Your task to perform on an android device: check battery use Image 0: 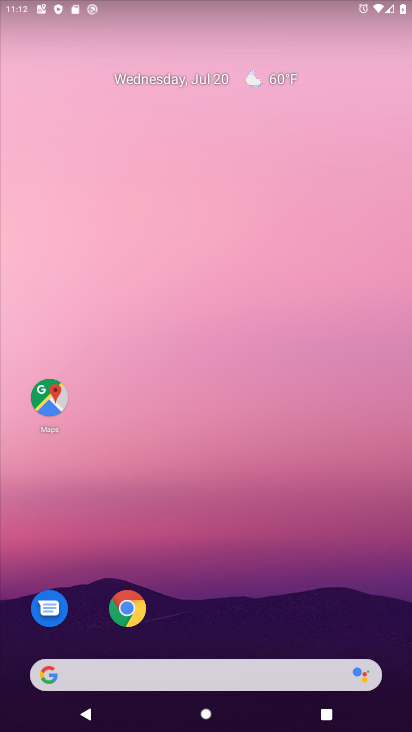
Step 0: drag from (302, 615) to (272, 71)
Your task to perform on an android device: check battery use Image 1: 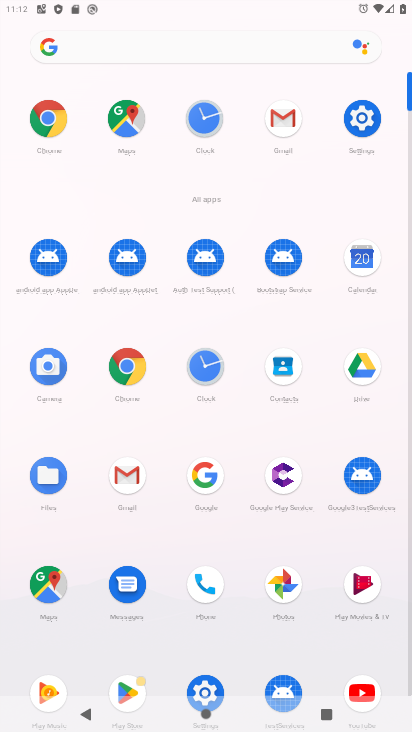
Step 1: click (351, 119)
Your task to perform on an android device: check battery use Image 2: 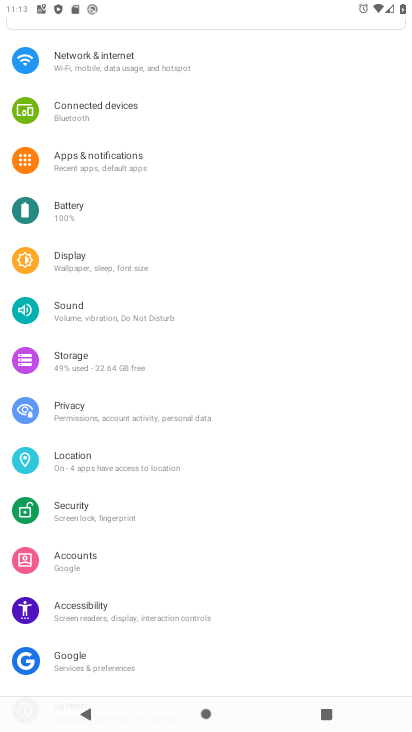
Step 2: click (66, 208)
Your task to perform on an android device: check battery use Image 3: 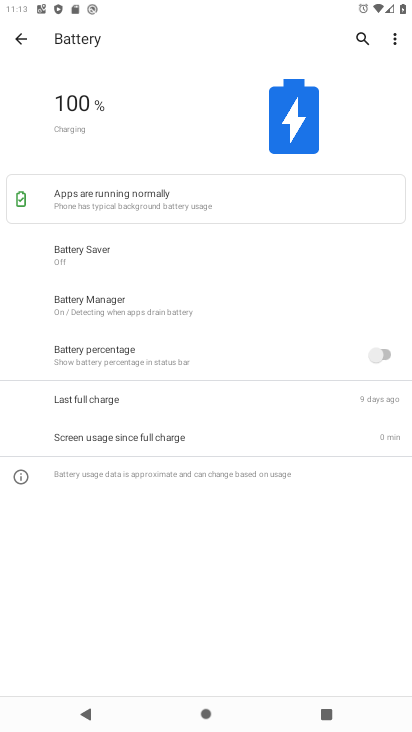
Step 3: click (392, 36)
Your task to perform on an android device: check battery use Image 4: 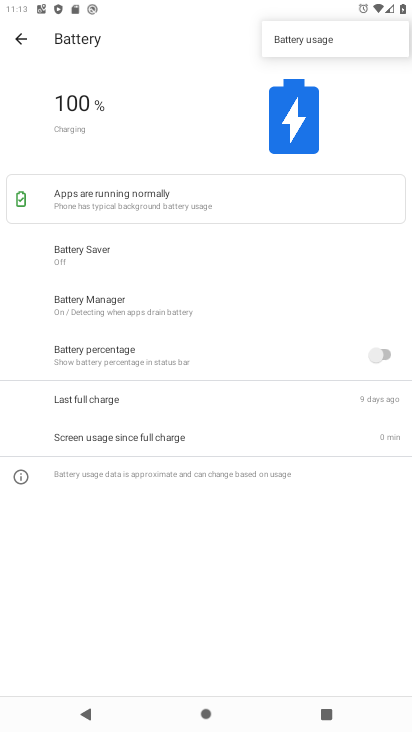
Step 4: click (373, 37)
Your task to perform on an android device: check battery use Image 5: 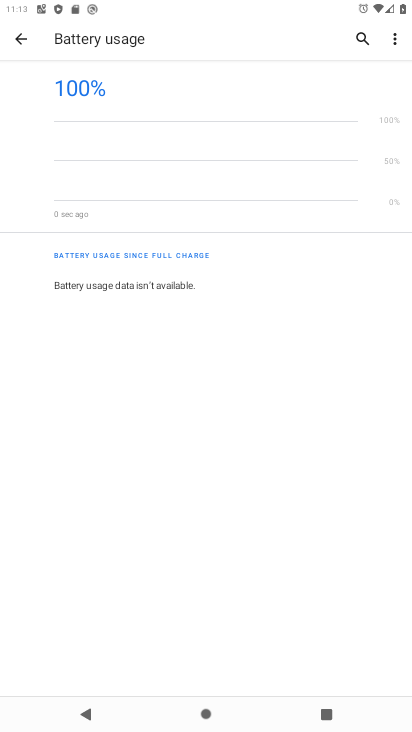
Step 5: task complete